Your task to perform on an android device: turn off javascript in the chrome app Image 0: 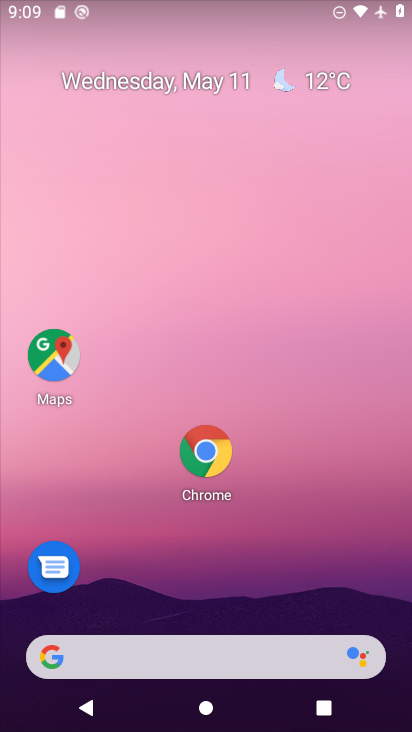
Step 0: press home button
Your task to perform on an android device: turn off javascript in the chrome app Image 1: 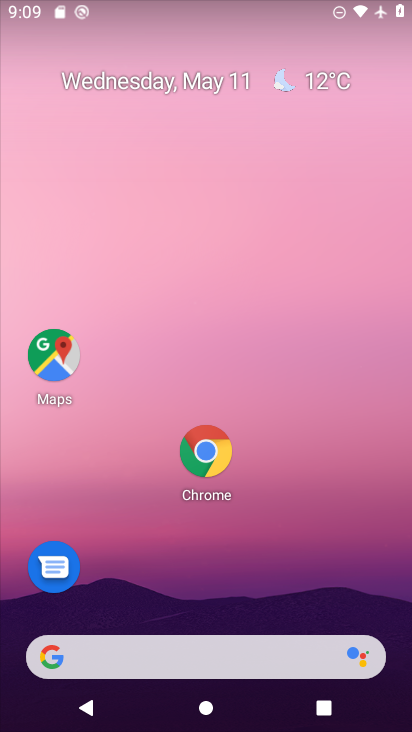
Step 1: drag from (161, 656) to (305, 177)
Your task to perform on an android device: turn off javascript in the chrome app Image 2: 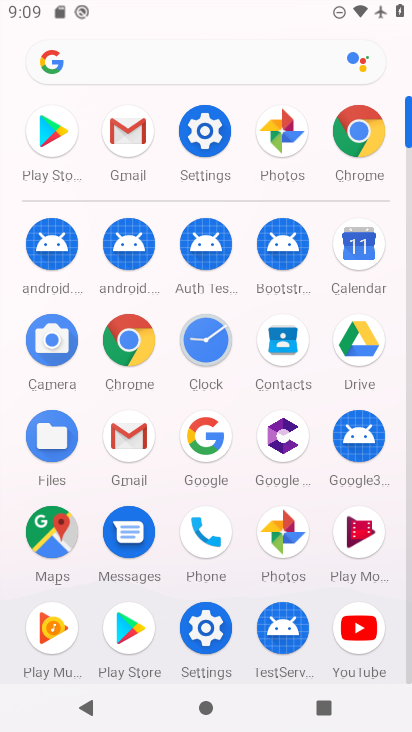
Step 2: click (370, 145)
Your task to perform on an android device: turn off javascript in the chrome app Image 3: 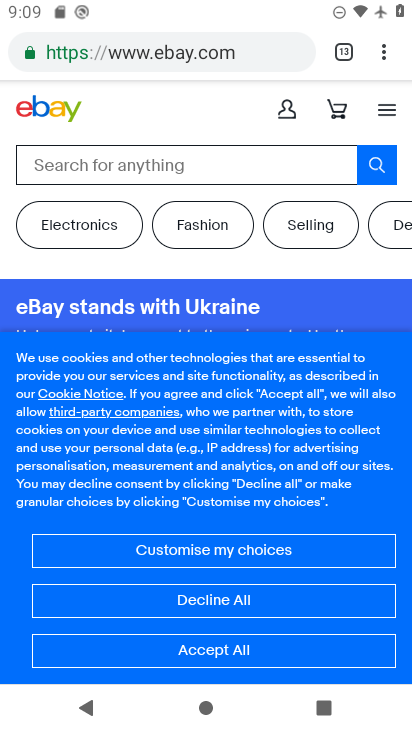
Step 3: drag from (384, 56) to (222, 604)
Your task to perform on an android device: turn off javascript in the chrome app Image 4: 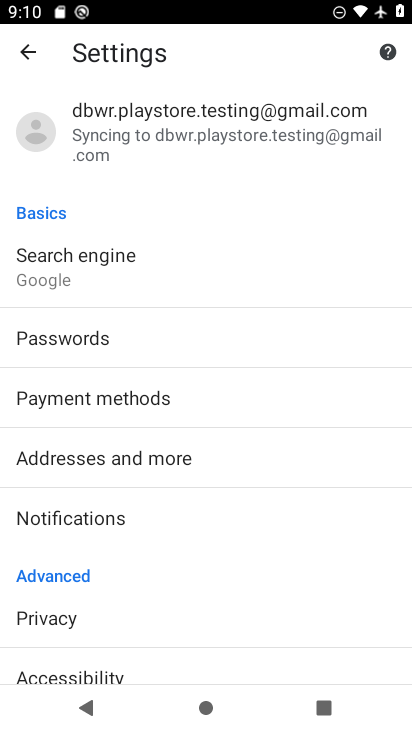
Step 4: drag from (187, 640) to (326, 264)
Your task to perform on an android device: turn off javascript in the chrome app Image 5: 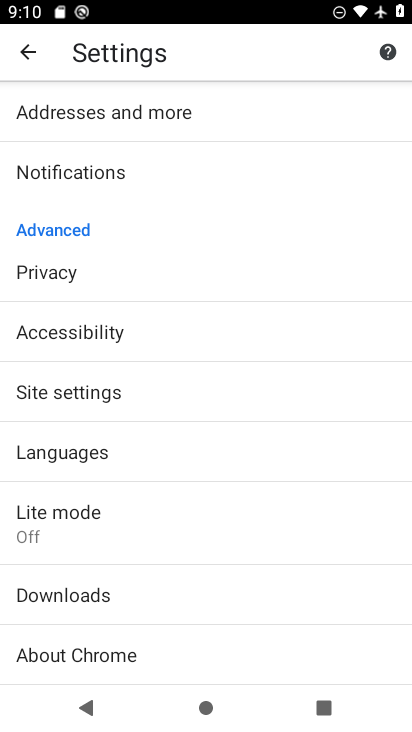
Step 5: click (104, 394)
Your task to perform on an android device: turn off javascript in the chrome app Image 6: 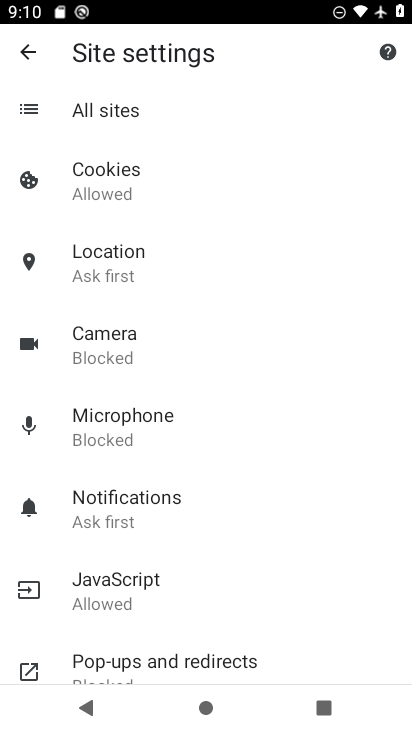
Step 6: click (118, 581)
Your task to perform on an android device: turn off javascript in the chrome app Image 7: 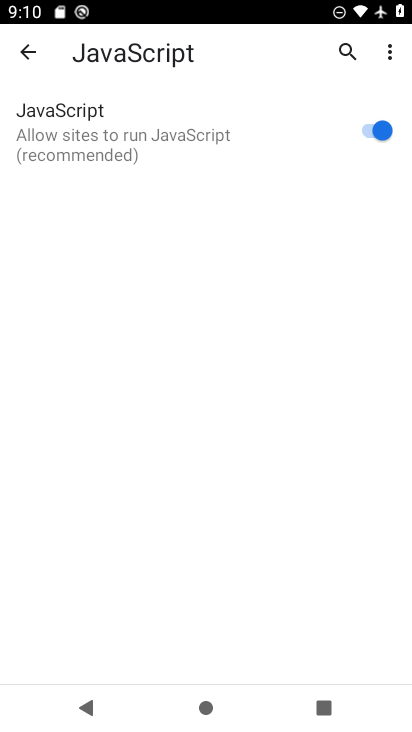
Step 7: click (374, 132)
Your task to perform on an android device: turn off javascript in the chrome app Image 8: 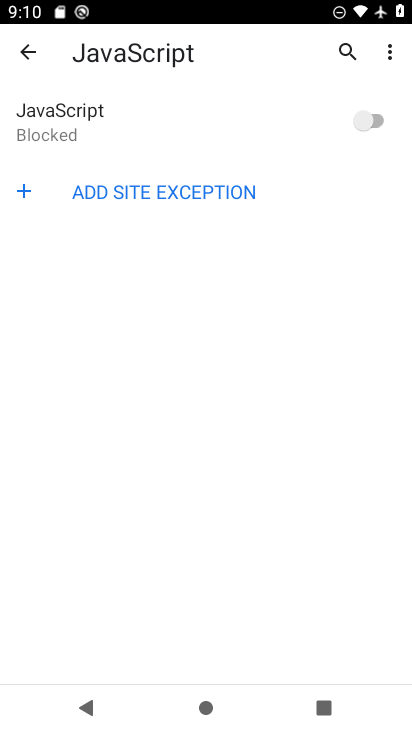
Step 8: task complete